Your task to perform on an android device: allow cookies in the chrome app Image 0: 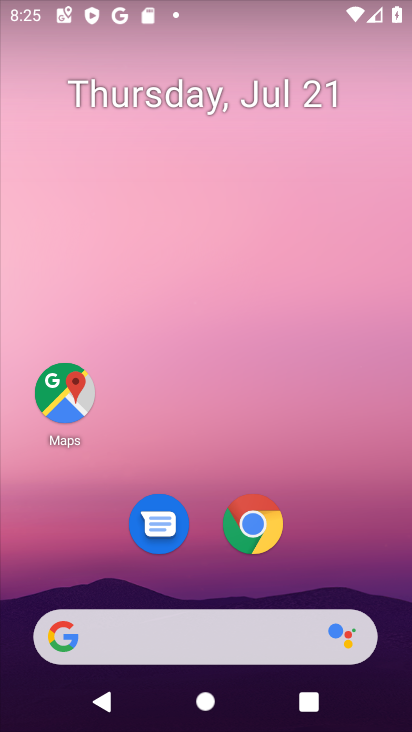
Step 0: press home button
Your task to perform on an android device: allow cookies in the chrome app Image 1: 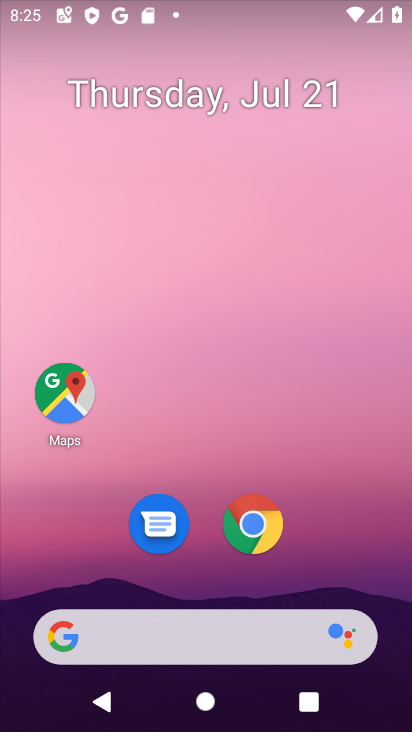
Step 1: click (256, 527)
Your task to perform on an android device: allow cookies in the chrome app Image 2: 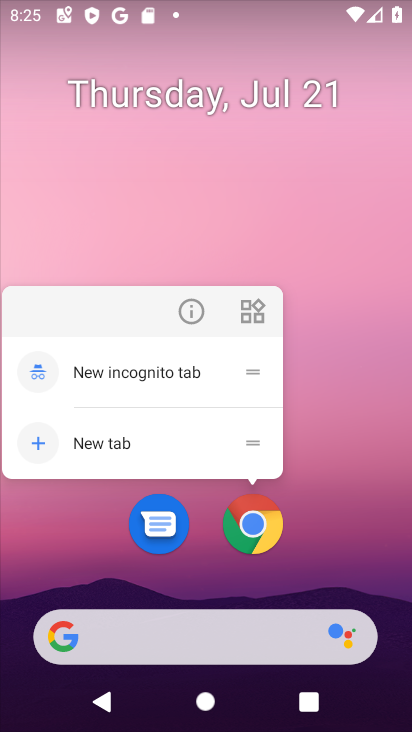
Step 2: click (255, 523)
Your task to perform on an android device: allow cookies in the chrome app Image 3: 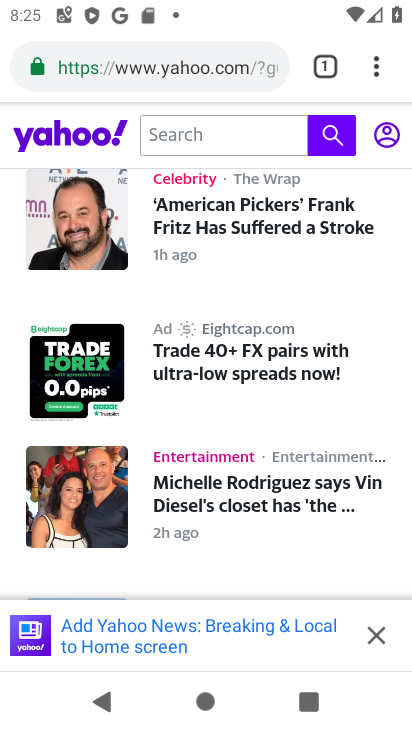
Step 3: drag from (376, 65) to (244, 510)
Your task to perform on an android device: allow cookies in the chrome app Image 4: 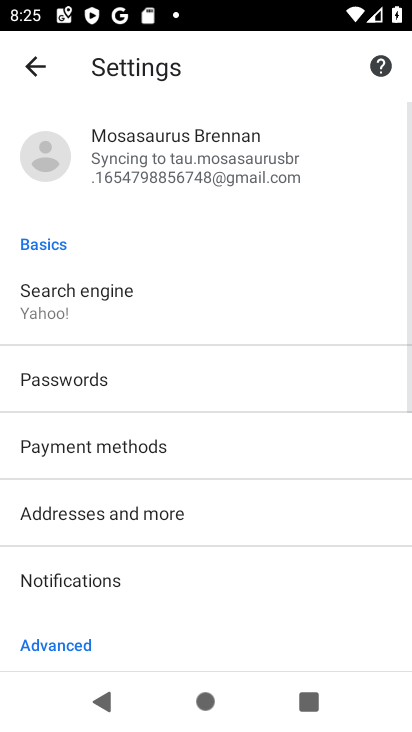
Step 4: drag from (217, 558) to (302, 99)
Your task to perform on an android device: allow cookies in the chrome app Image 5: 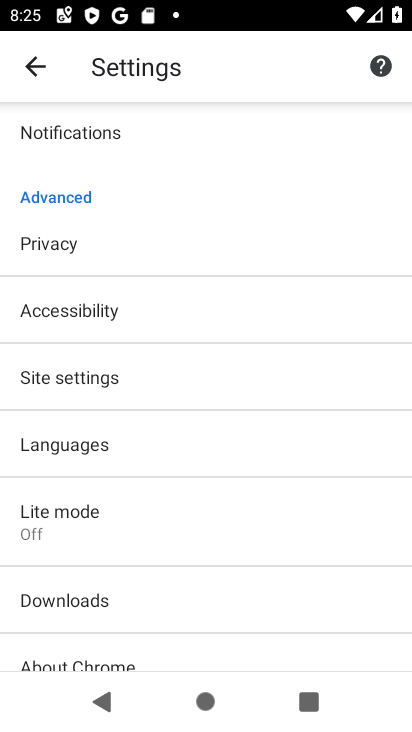
Step 5: click (100, 379)
Your task to perform on an android device: allow cookies in the chrome app Image 6: 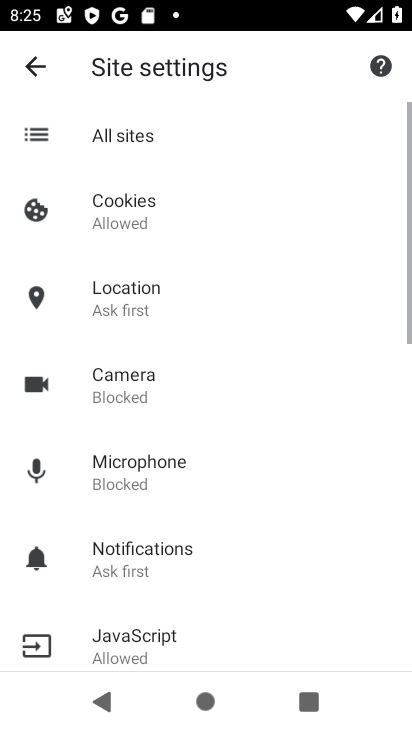
Step 6: click (142, 213)
Your task to perform on an android device: allow cookies in the chrome app Image 7: 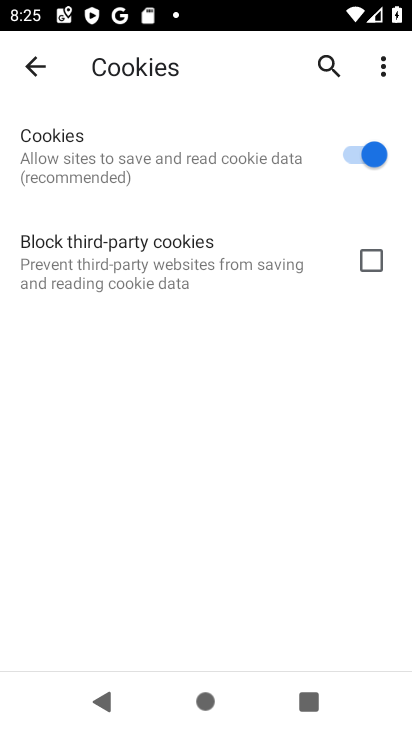
Step 7: task complete